Your task to perform on an android device: Open Maps and search for coffee Image 0: 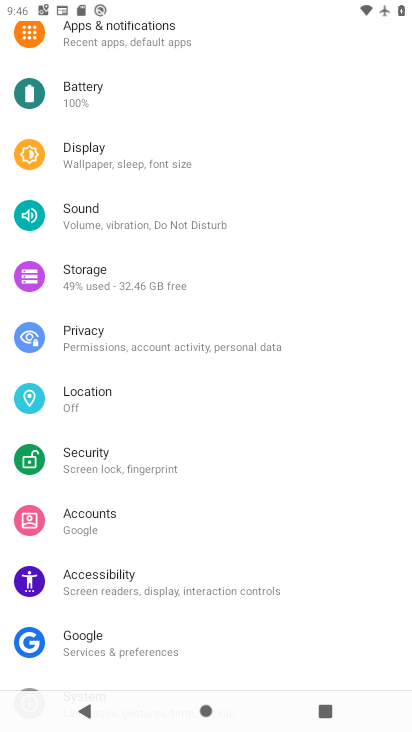
Step 0: press home button
Your task to perform on an android device: Open Maps and search for coffee Image 1: 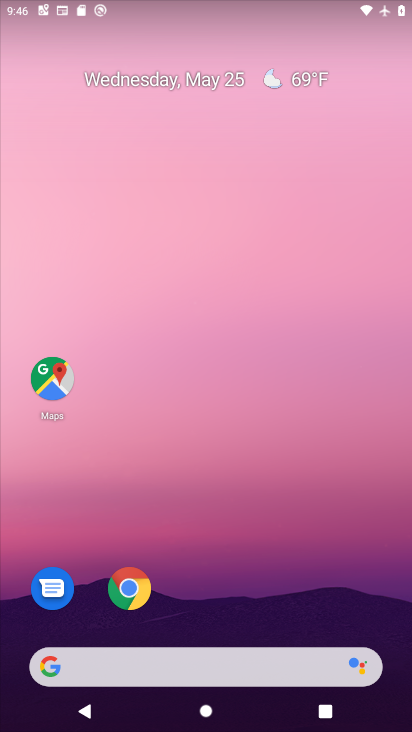
Step 1: drag from (366, 588) to (343, 221)
Your task to perform on an android device: Open Maps and search for coffee Image 2: 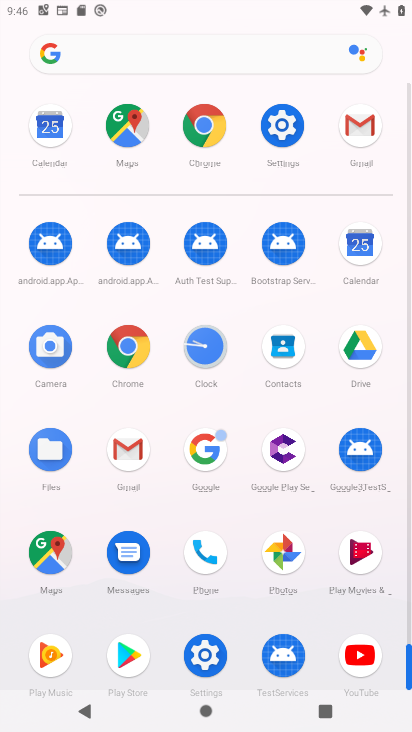
Step 2: click (55, 570)
Your task to perform on an android device: Open Maps and search for coffee Image 3: 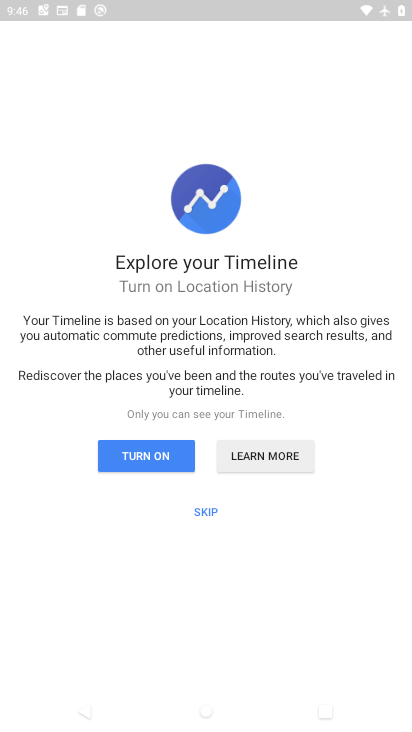
Step 3: click (203, 504)
Your task to perform on an android device: Open Maps and search for coffee Image 4: 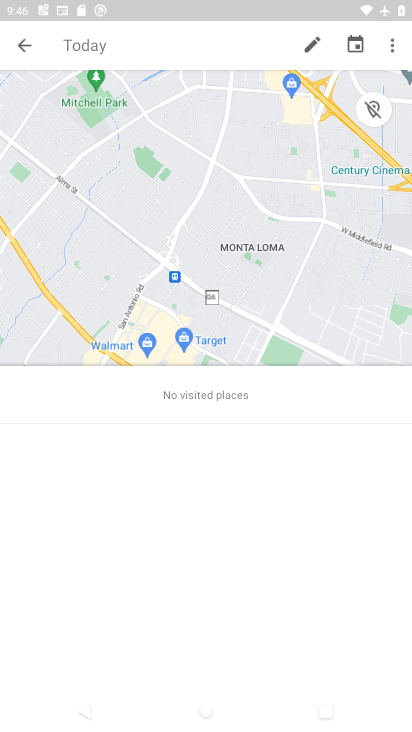
Step 4: click (203, 504)
Your task to perform on an android device: Open Maps and search for coffee Image 5: 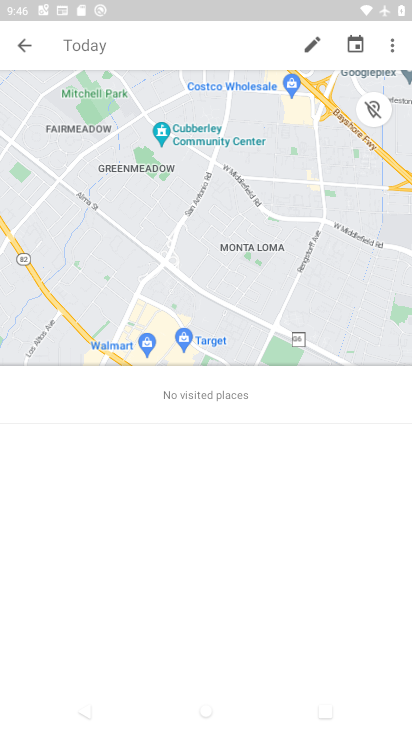
Step 5: click (15, 47)
Your task to perform on an android device: Open Maps and search for coffee Image 6: 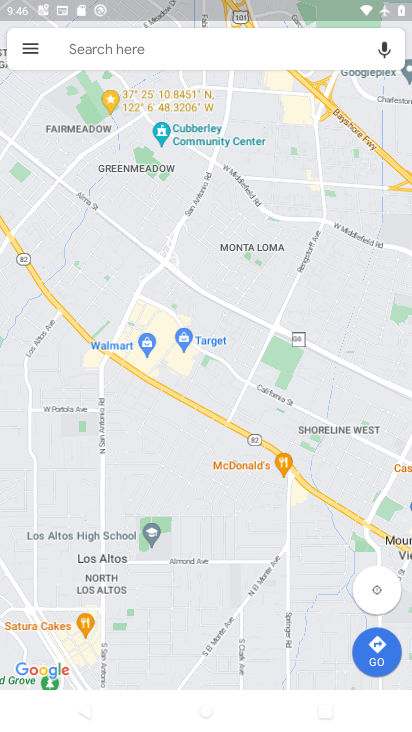
Step 6: click (108, 57)
Your task to perform on an android device: Open Maps and search for coffee Image 7: 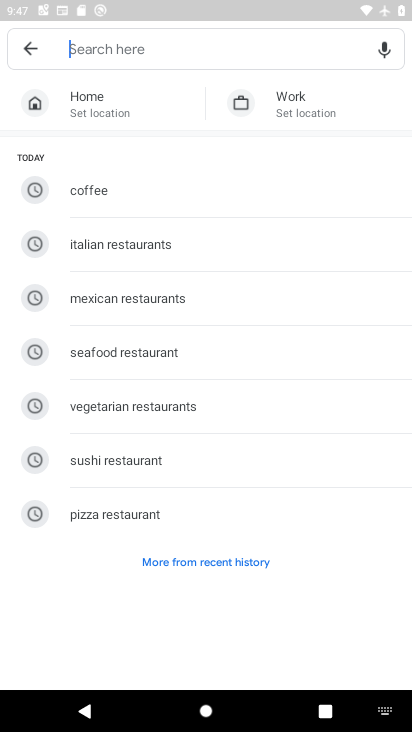
Step 7: type "xoffee"
Your task to perform on an android device: Open Maps and search for coffee Image 8: 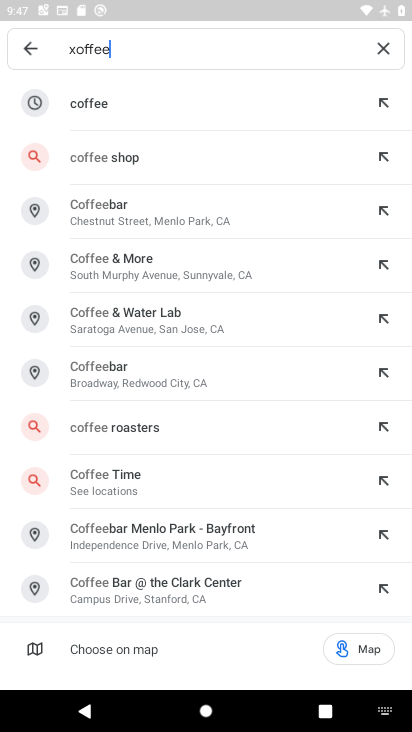
Step 8: click (386, 51)
Your task to perform on an android device: Open Maps and search for coffee Image 9: 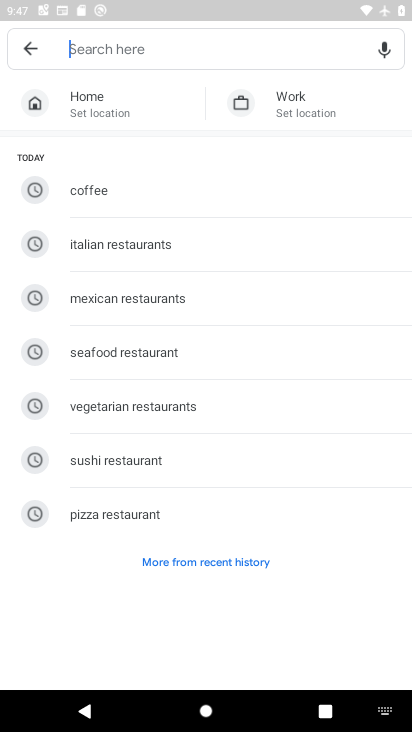
Step 9: type "coffee"
Your task to perform on an android device: Open Maps and search for coffee Image 10: 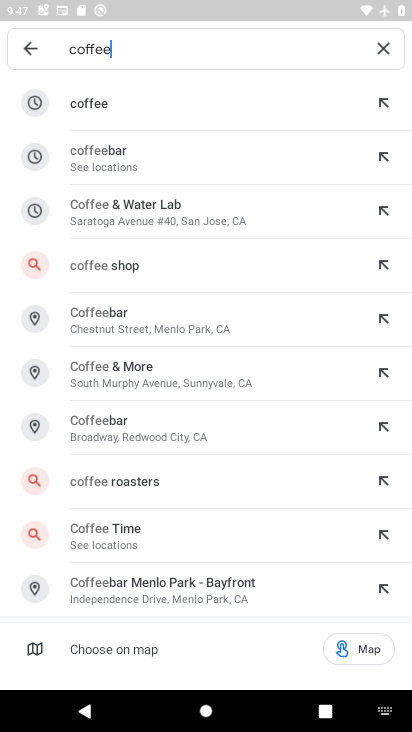
Step 10: click (201, 111)
Your task to perform on an android device: Open Maps and search for coffee Image 11: 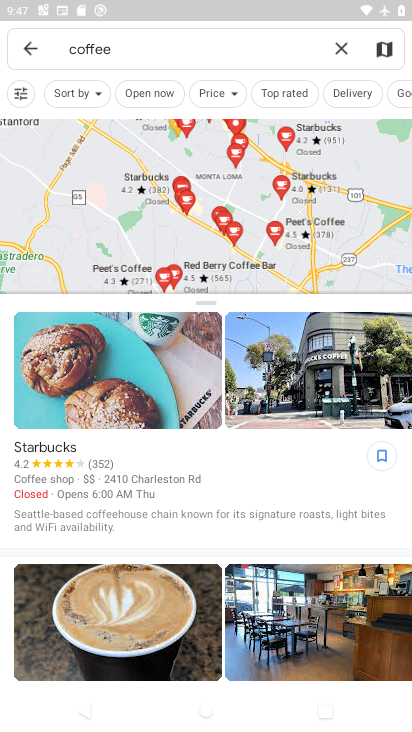
Step 11: task complete